Your task to perform on an android device: add a contact in the contacts app Image 0: 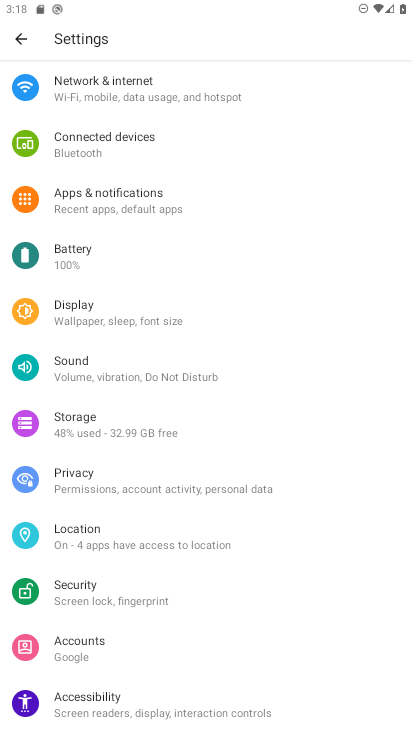
Step 0: press home button
Your task to perform on an android device: add a contact in the contacts app Image 1: 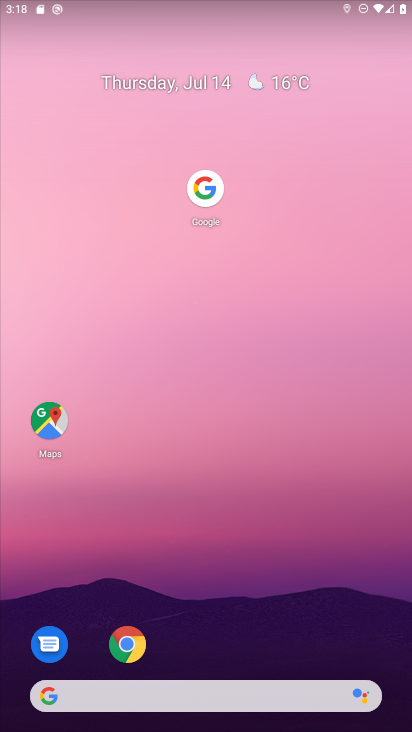
Step 1: drag from (204, 653) to (228, 237)
Your task to perform on an android device: add a contact in the contacts app Image 2: 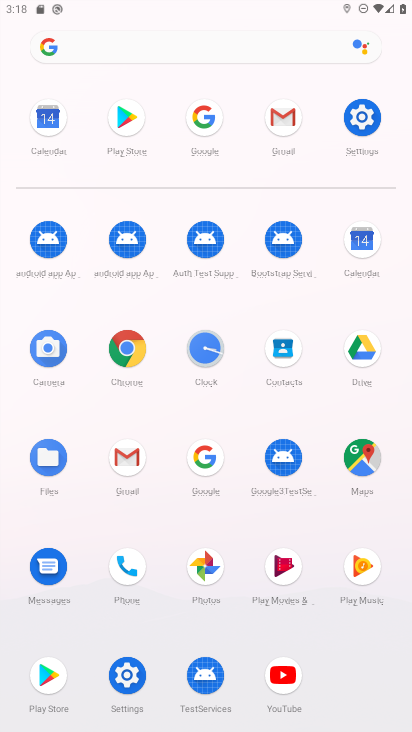
Step 2: click (286, 359)
Your task to perform on an android device: add a contact in the contacts app Image 3: 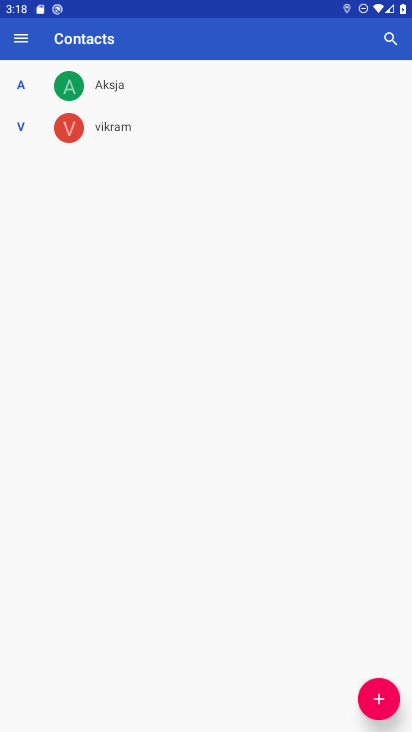
Step 3: click (387, 705)
Your task to perform on an android device: add a contact in the contacts app Image 4: 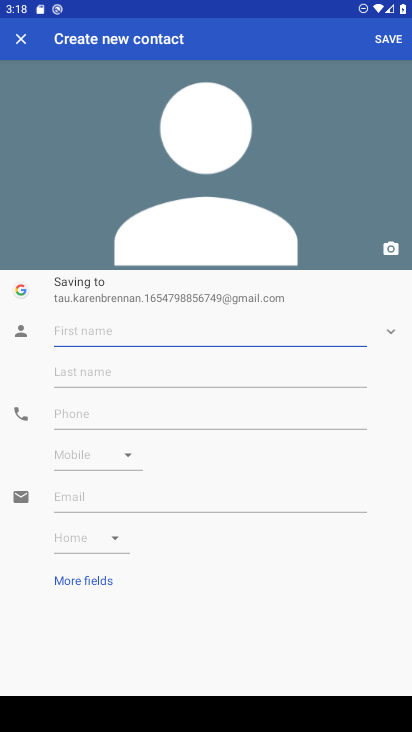
Step 4: type "fghhfg"
Your task to perform on an android device: add a contact in the contacts app Image 5: 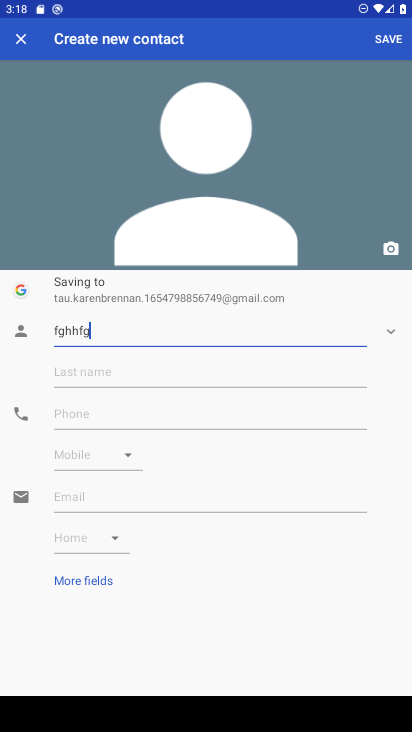
Step 5: click (81, 402)
Your task to perform on an android device: add a contact in the contacts app Image 6: 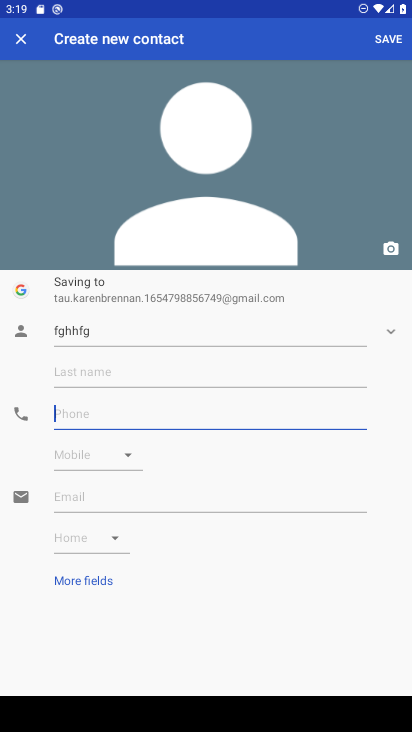
Step 6: type "6857674564"
Your task to perform on an android device: add a contact in the contacts app Image 7: 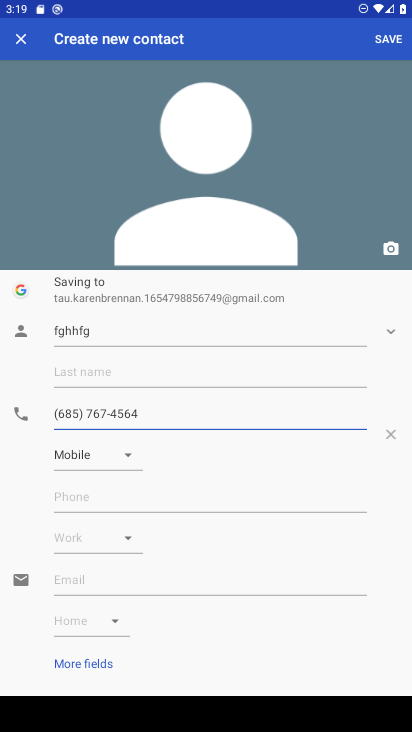
Step 7: click (395, 42)
Your task to perform on an android device: add a contact in the contacts app Image 8: 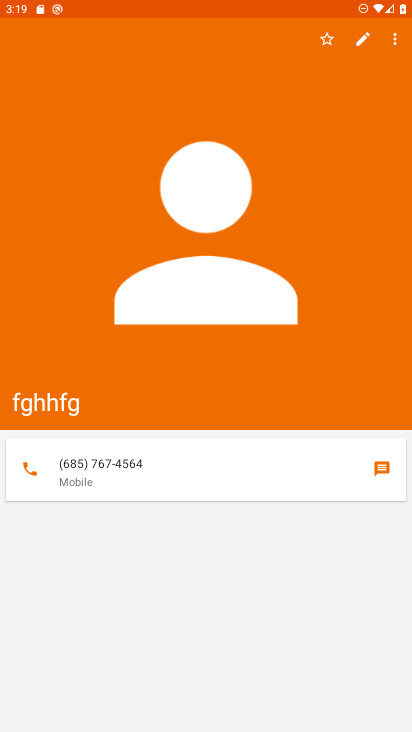
Step 8: task complete